Your task to perform on an android device: What's the weather today? Image 0: 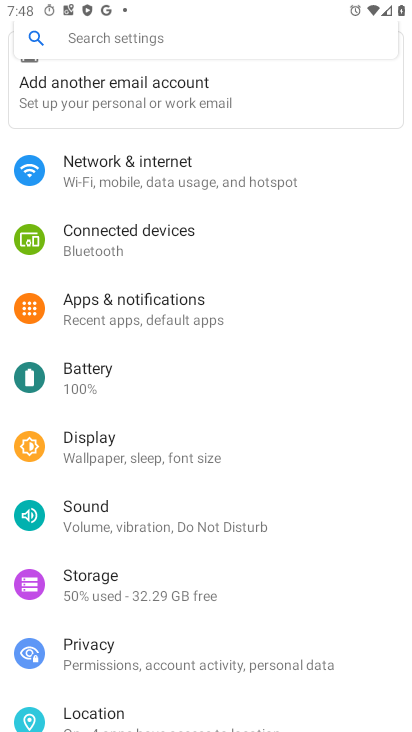
Step 0: press home button
Your task to perform on an android device: What's the weather today? Image 1: 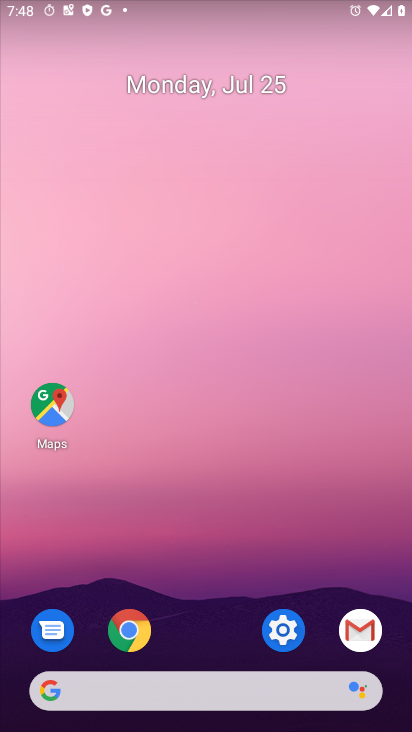
Step 1: click (205, 697)
Your task to perform on an android device: What's the weather today? Image 2: 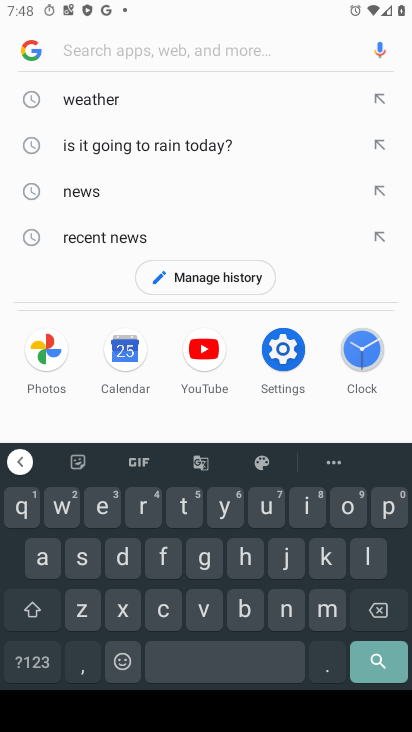
Step 2: click (101, 79)
Your task to perform on an android device: What's the weather today? Image 3: 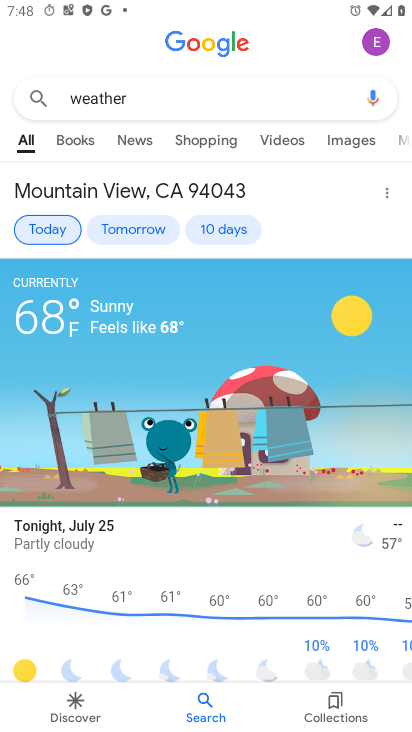
Step 3: task complete